Your task to perform on an android device: Open Youtube and go to the subscriptions tab Image 0: 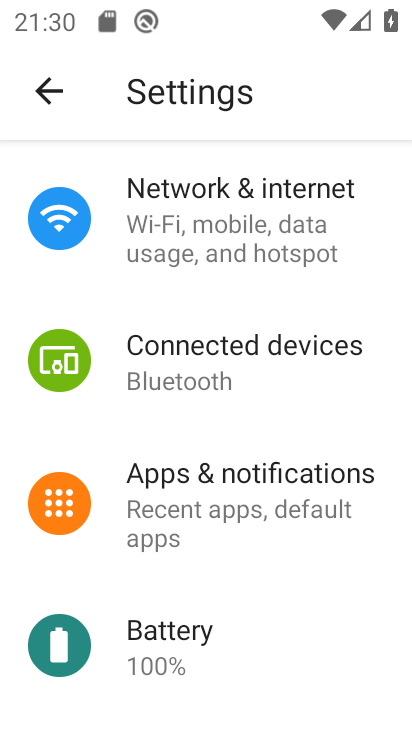
Step 0: press home button
Your task to perform on an android device: Open Youtube and go to the subscriptions tab Image 1: 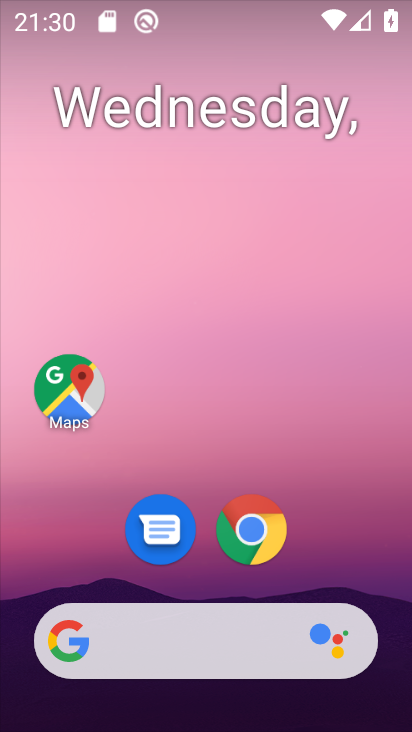
Step 1: drag from (95, 585) to (193, 163)
Your task to perform on an android device: Open Youtube and go to the subscriptions tab Image 2: 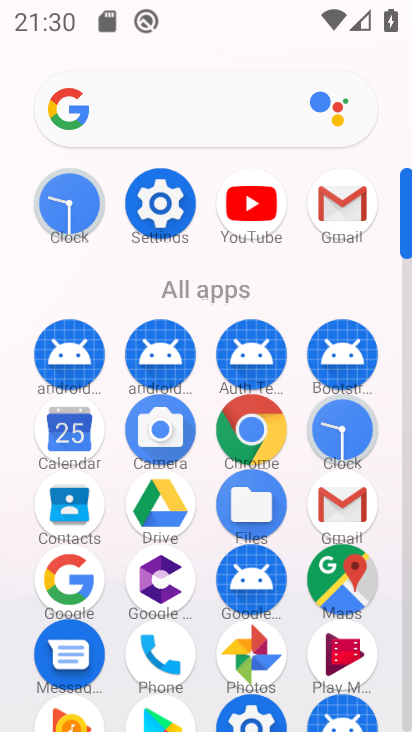
Step 2: drag from (259, 588) to (306, 354)
Your task to perform on an android device: Open Youtube and go to the subscriptions tab Image 3: 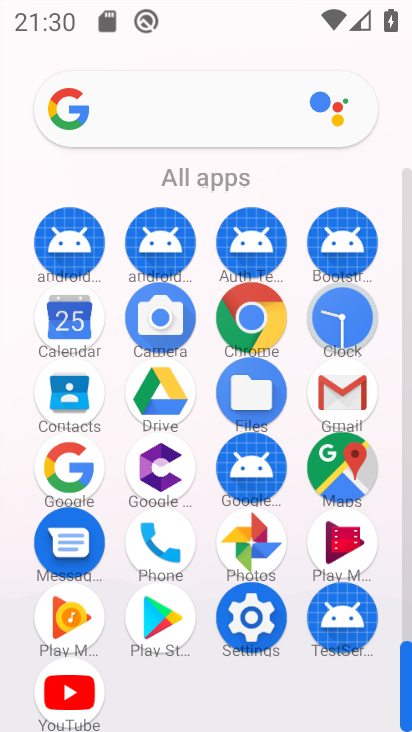
Step 3: click (79, 689)
Your task to perform on an android device: Open Youtube and go to the subscriptions tab Image 4: 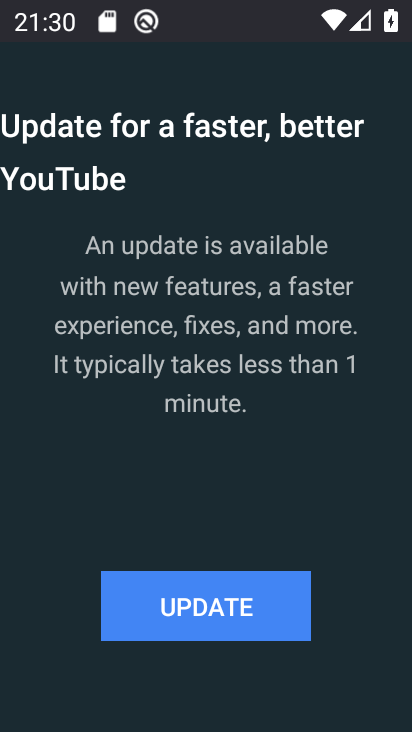
Step 4: click (292, 639)
Your task to perform on an android device: Open Youtube and go to the subscriptions tab Image 5: 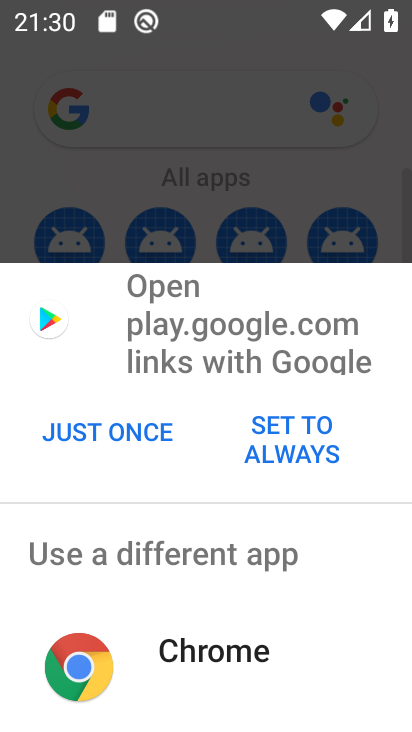
Step 5: drag from (249, 688) to (313, 446)
Your task to perform on an android device: Open Youtube and go to the subscriptions tab Image 6: 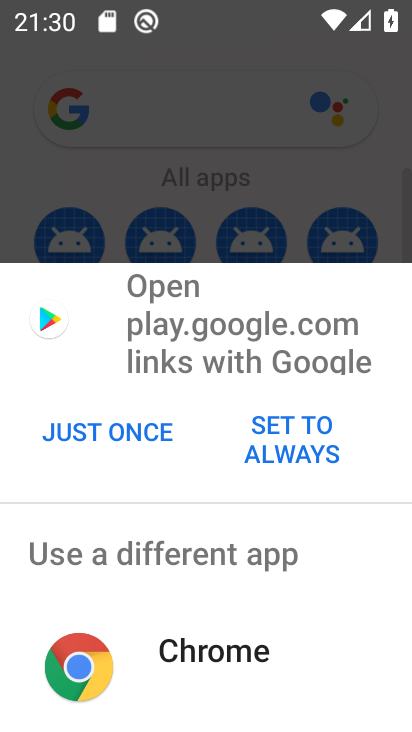
Step 6: click (149, 434)
Your task to perform on an android device: Open Youtube and go to the subscriptions tab Image 7: 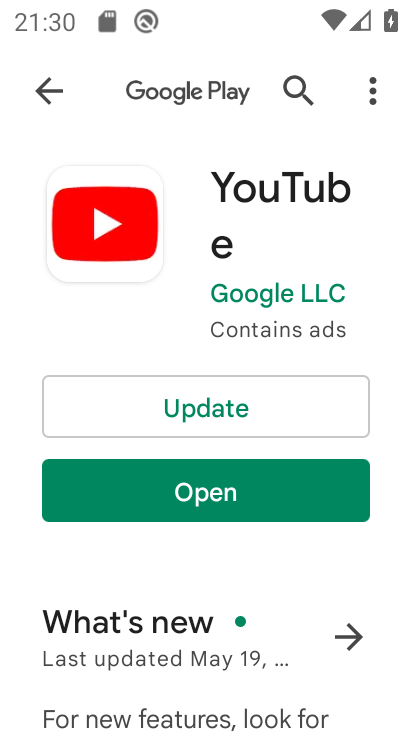
Step 7: click (265, 425)
Your task to perform on an android device: Open Youtube and go to the subscriptions tab Image 8: 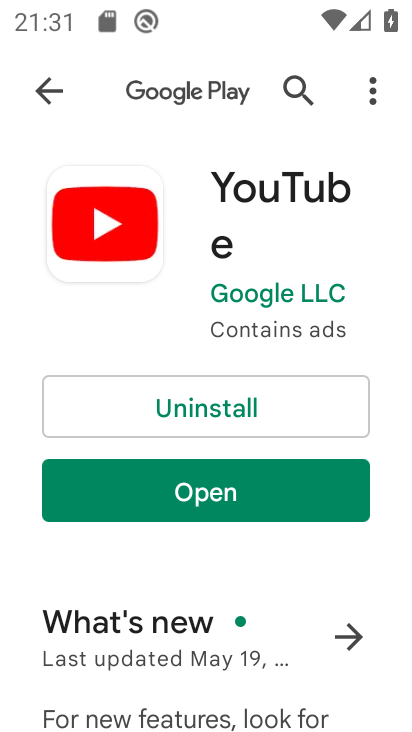
Step 8: click (254, 500)
Your task to perform on an android device: Open Youtube and go to the subscriptions tab Image 9: 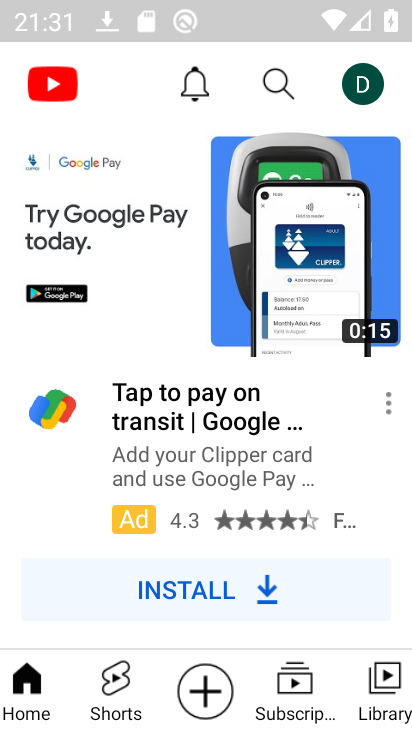
Step 9: click (302, 703)
Your task to perform on an android device: Open Youtube and go to the subscriptions tab Image 10: 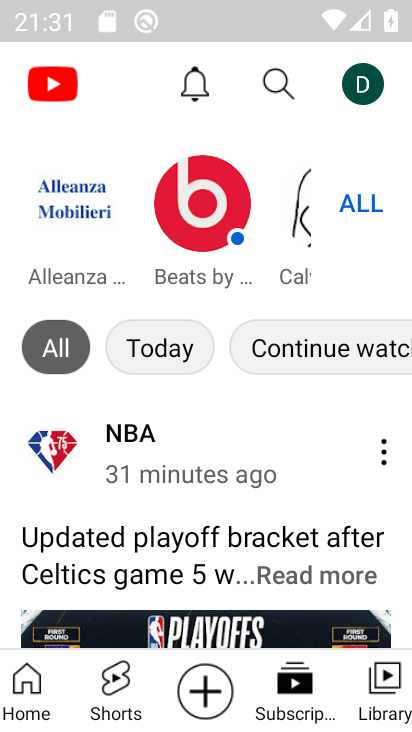
Step 10: task complete